Your task to perform on an android device: turn on data saver in the chrome app Image 0: 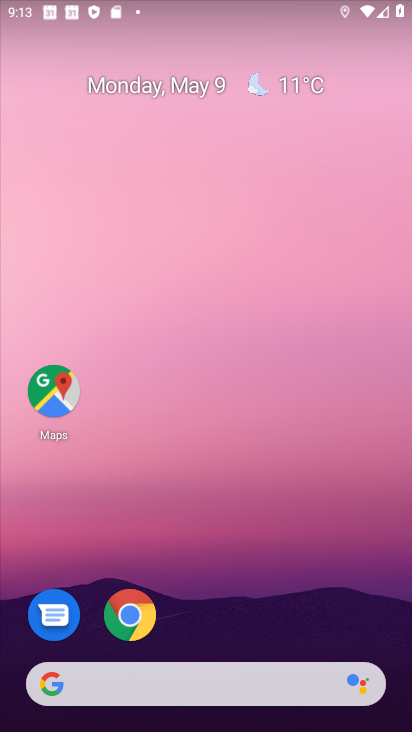
Step 0: drag from (191, 539) to (160, 7)
Your task to perform on an android device: turn on data saver in the chrome app Image 1: 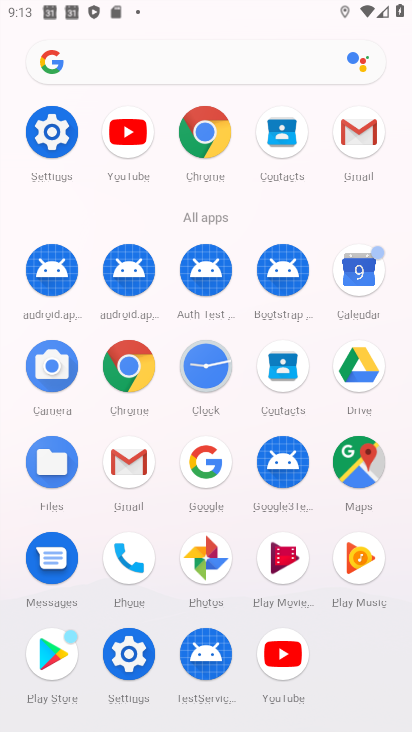
Step 1: click (125, 361)
Your task to perform on an android device: turn on data saver in the chrome app Image 2: 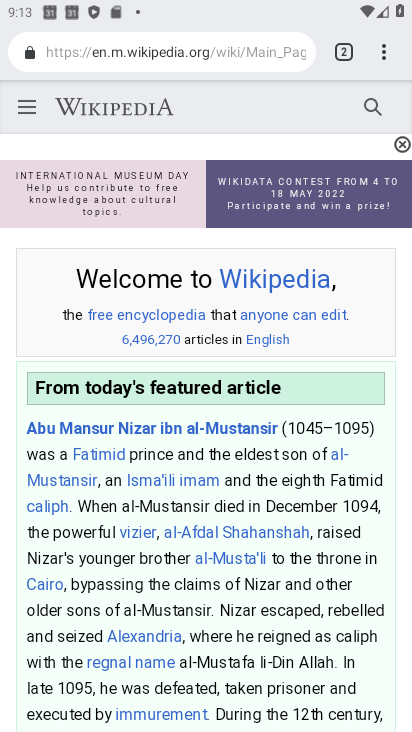
Step 2: drag from (383, 56) to (199, 627)
Your task to perform on an android device: turn on data saver in the chrome app Image 3: 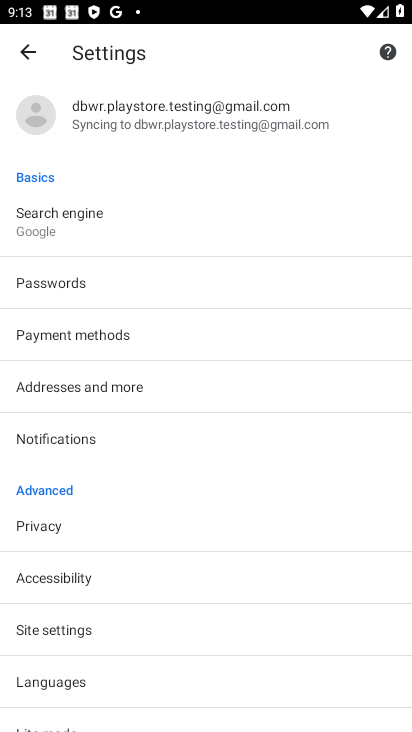
Step 3: drag from (215, 515) to (201, 205)
Your task to perform on an android device: turn on data saver in the chrome app Image 4: 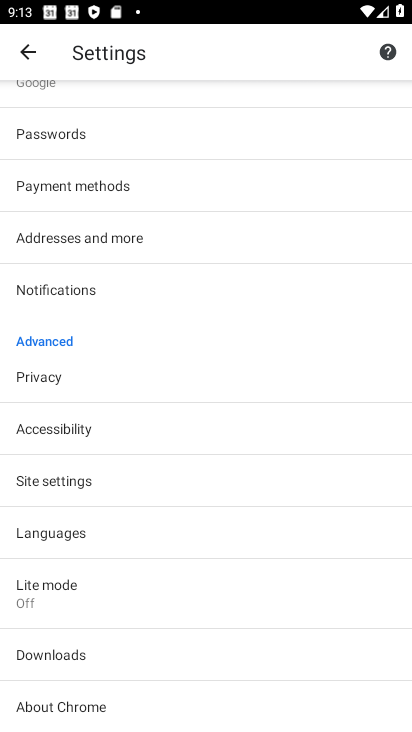
Step 4: click (116, 591)
Your task to perform on an android device: turn on data saver in the chrome app Image 5: 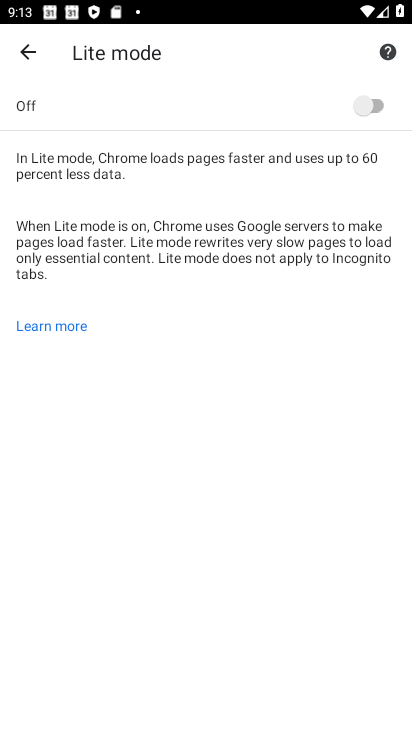
Step 5: click (365, 98)
Your task to perform on an android device: turn on data saver in the chrome app Image 6: 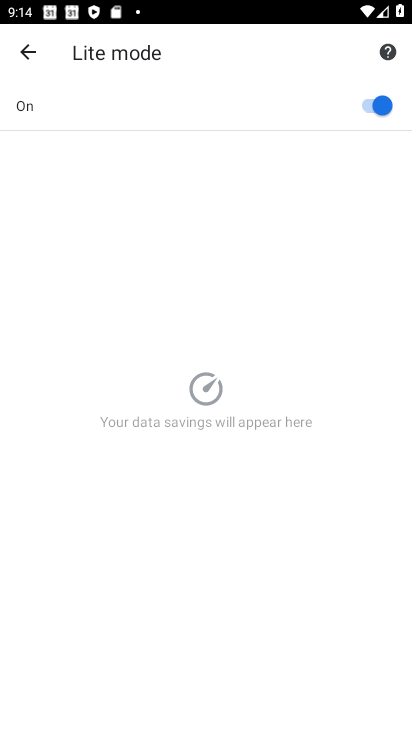
Step 6: task complete